Your task to perform on an android device: Search for flights from Zurich to Helsinki Image 0: 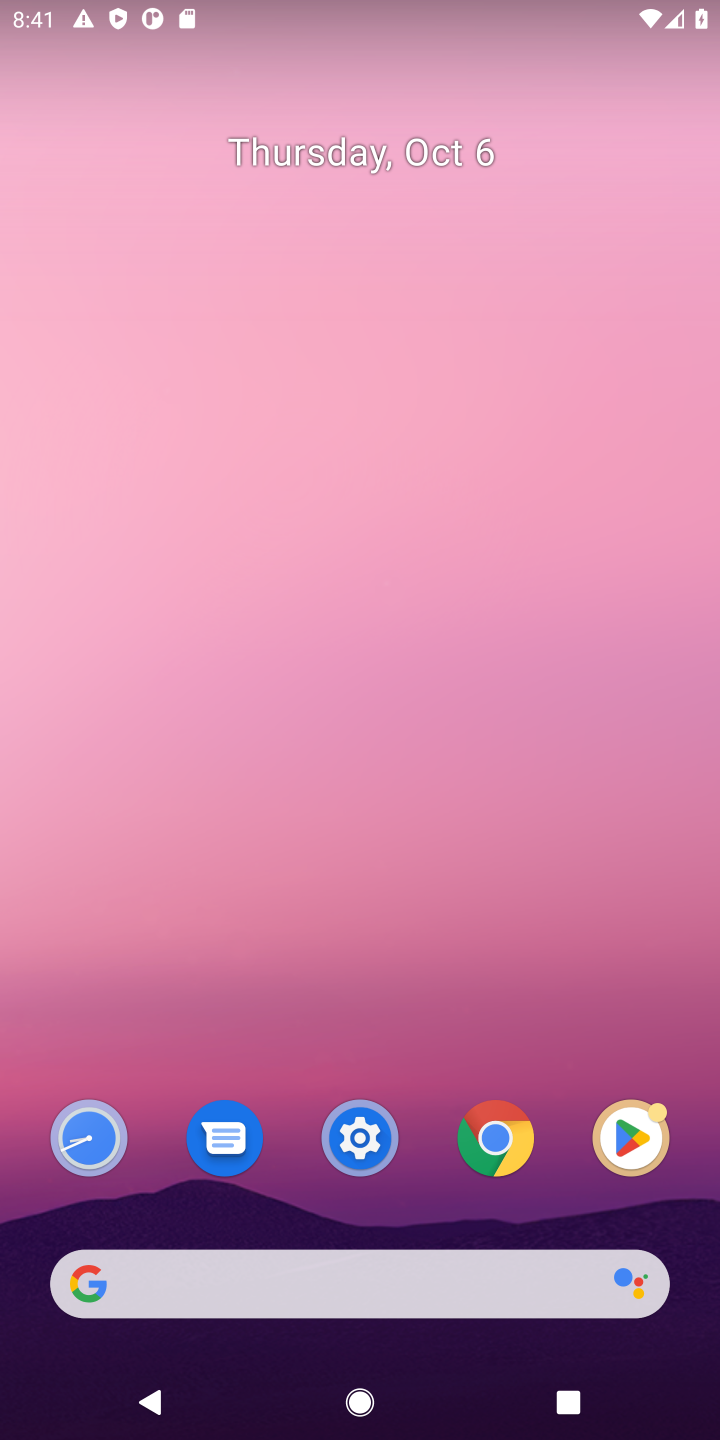
Step 0: click (408, 1279)
Your task to perform on an android device: Search for flights from Zurich to Helsinki Image 1: 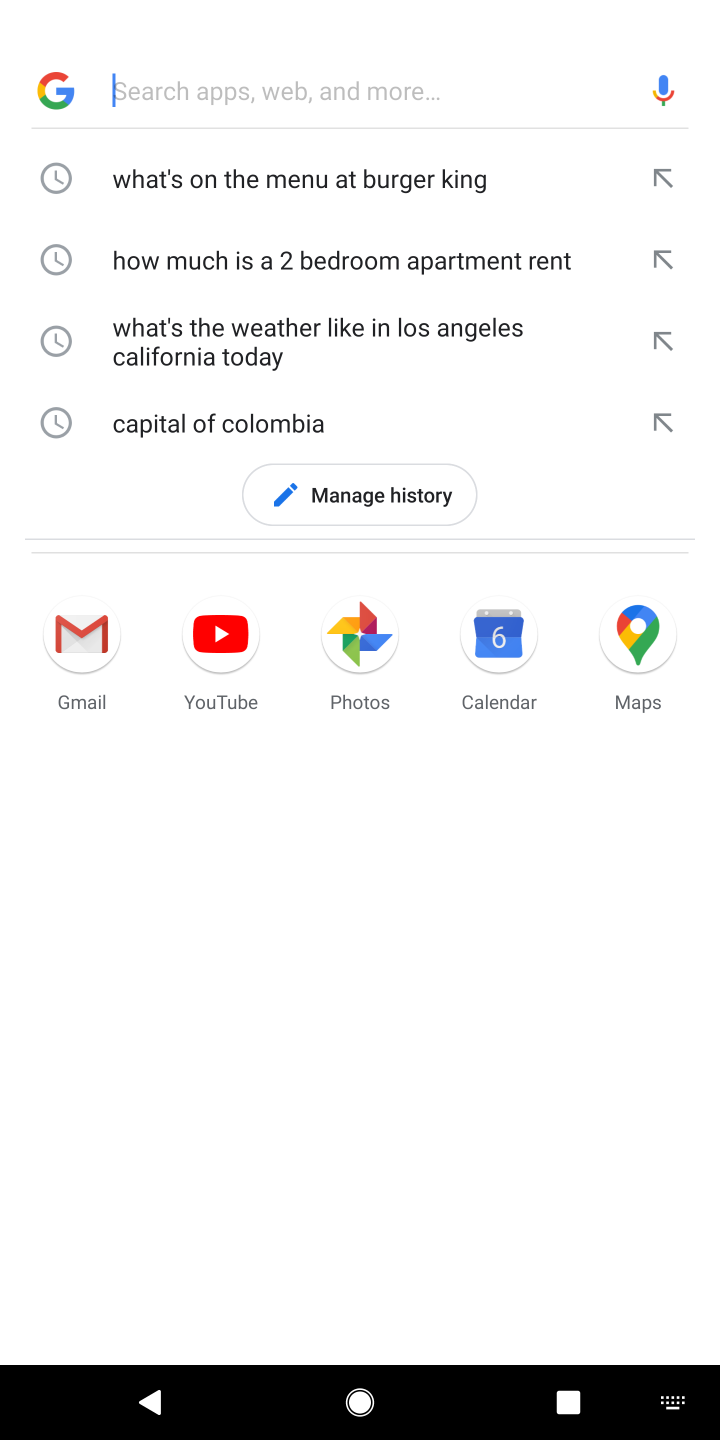
Step 1: type "flights from Zurich to Helsinki"
Your task to perform on an android device: Search for flights from Zurich to Helsinki Image 2: 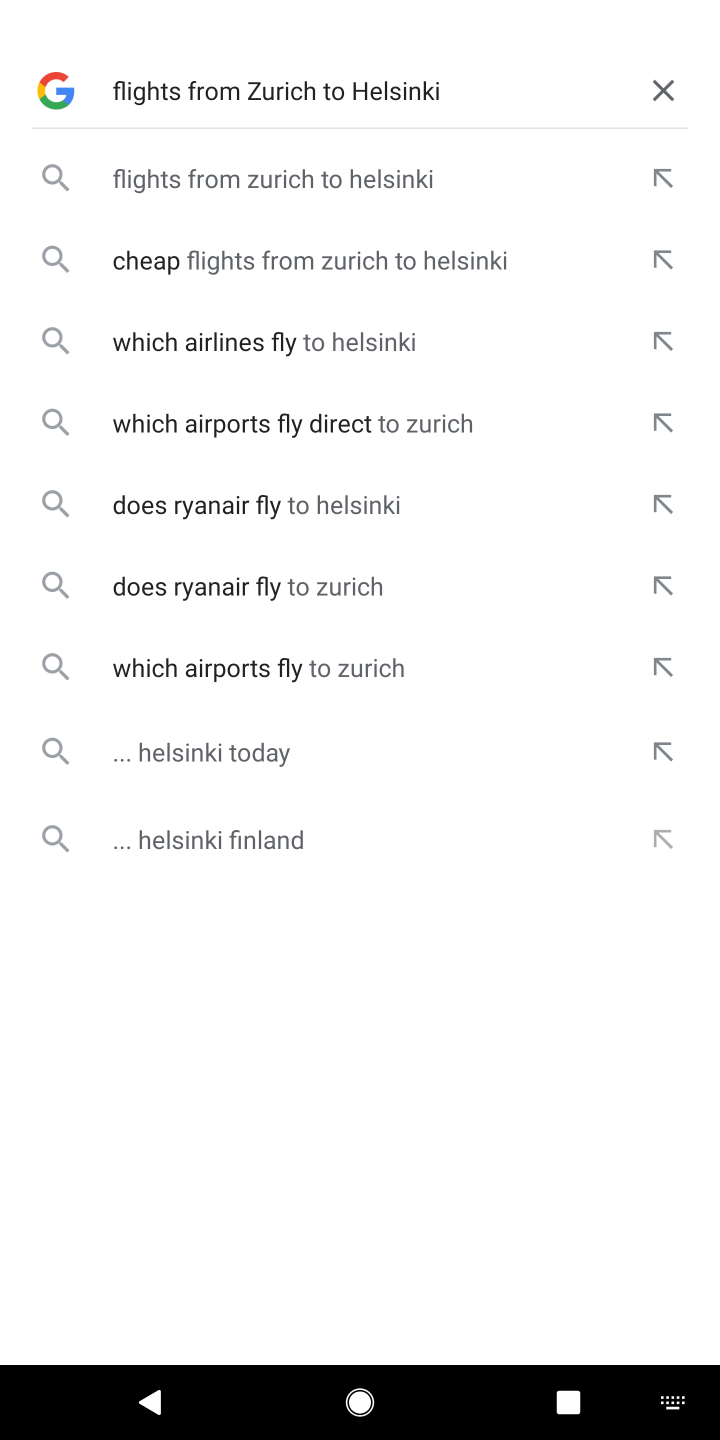
Step 2: click (246, 181)
Your task to perform on an android device: Search for flights from Zurich to Helsinki Image 3: 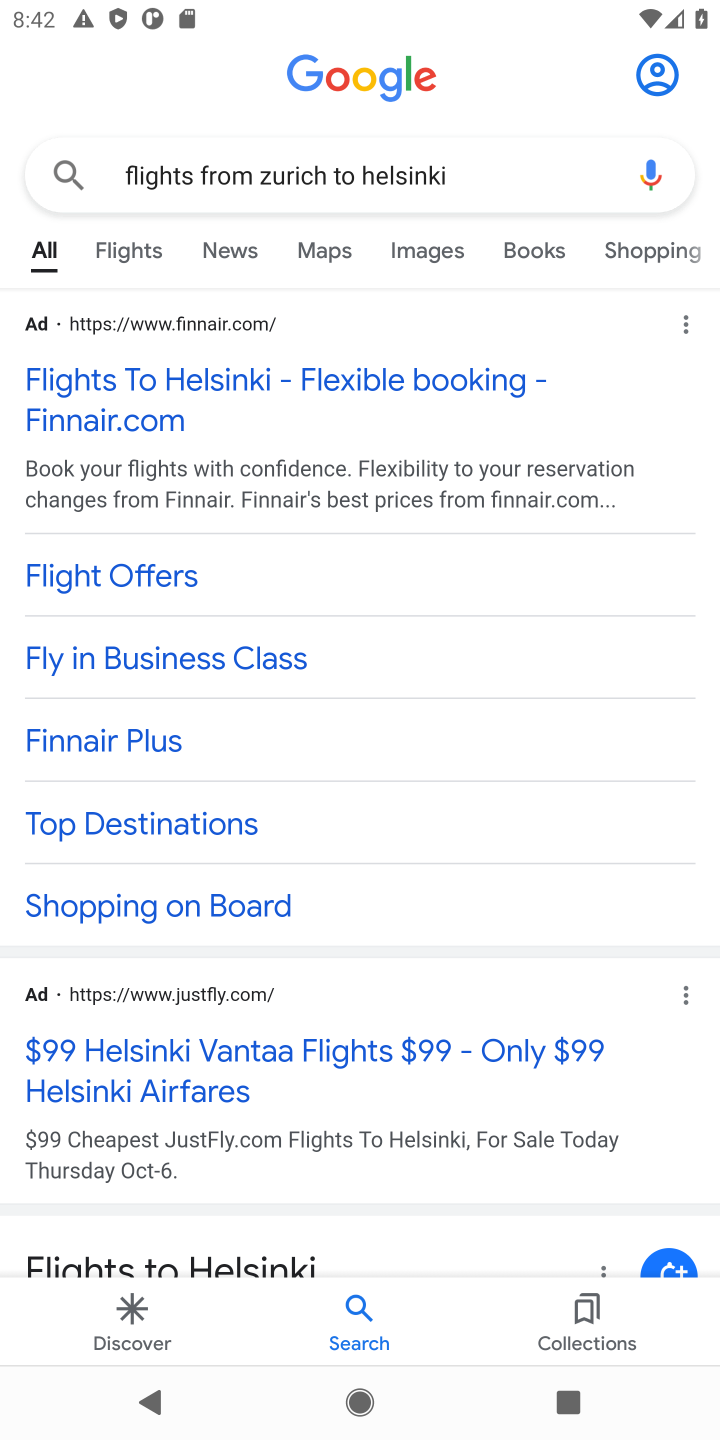
Step 3: click (138, 391)
Your task to perform on an android device: Search for flights from Zurich to Helsinki Image 4: 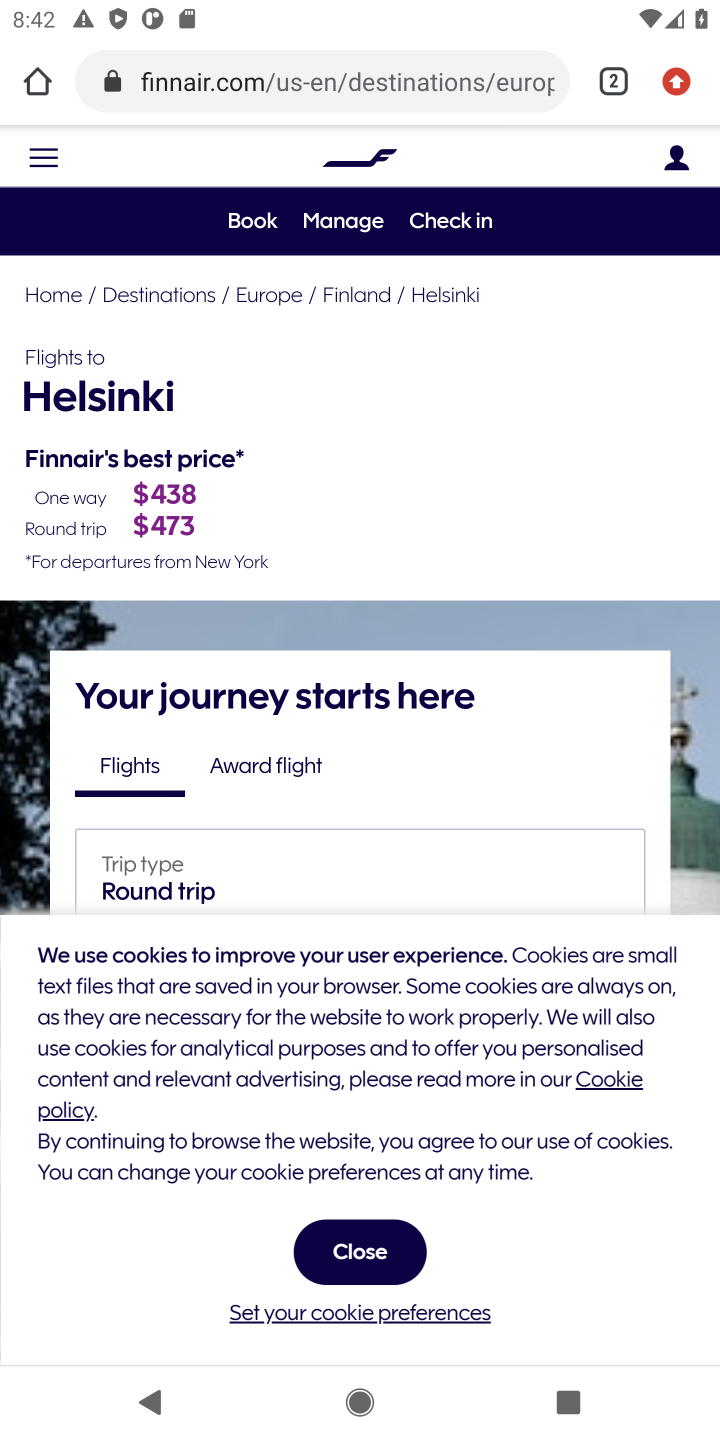
Step 4: click (345, 1247)
Your task to perform on an android device: Search for flights from Zurich to Helsinki Image 5: 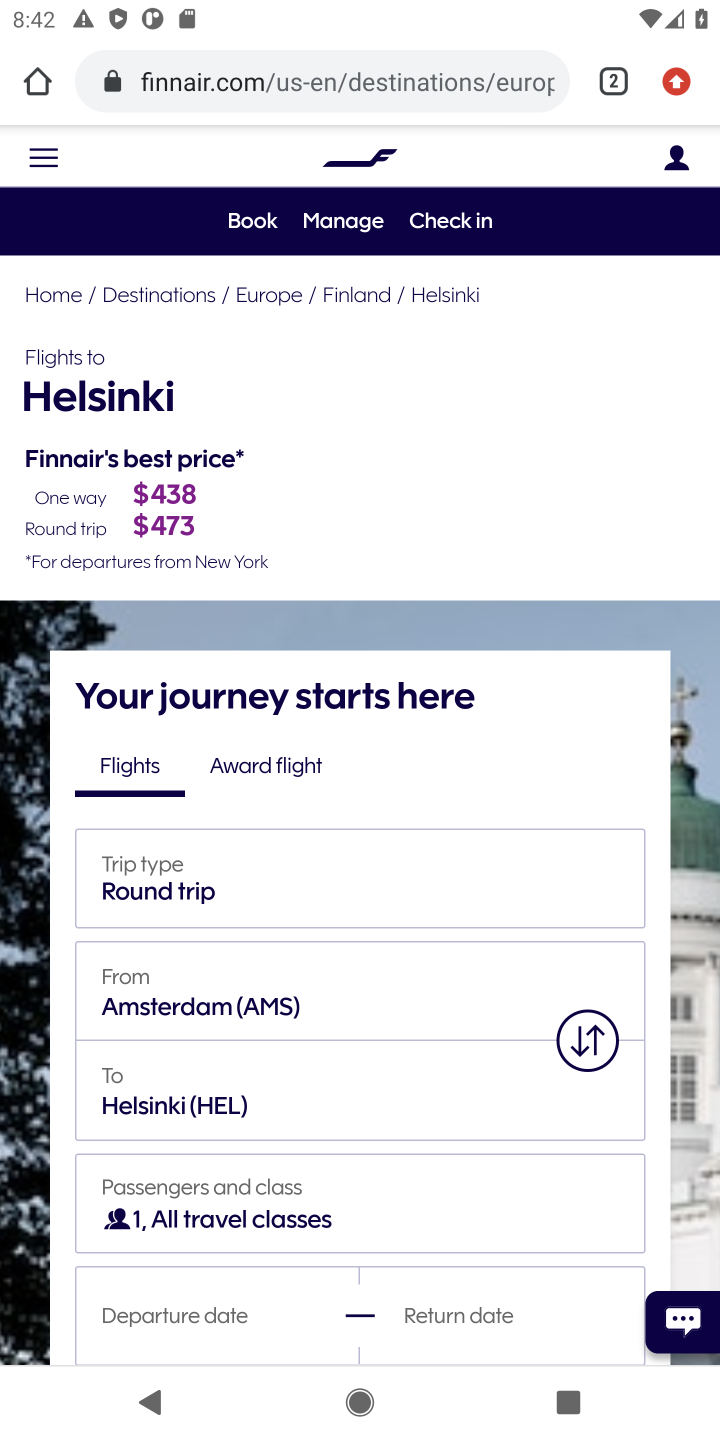
Step 5: task complete